Your task to perform on an android device: Play the last video I watched on Youtube Image 0: 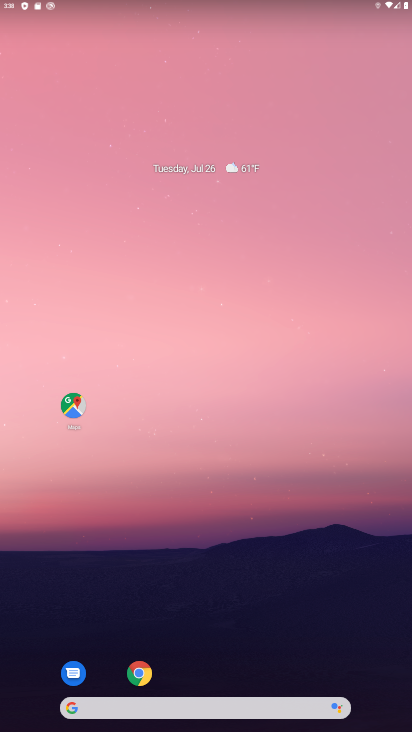
Step 0: press home button
Your task to perform on an android device: Play the last video I watched on Youtube Image 1: 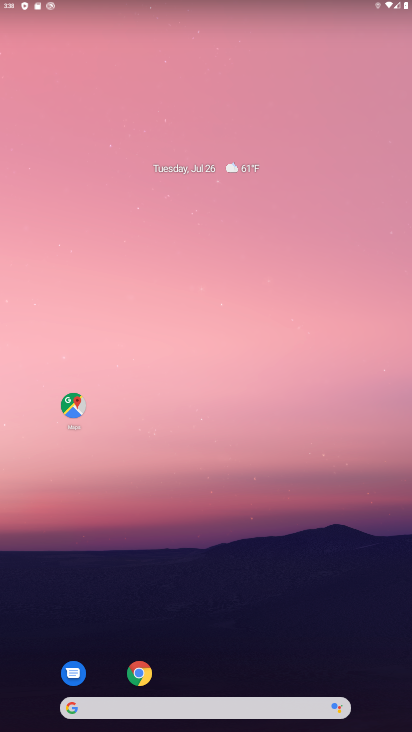
Step 1: drag from (216, 674) to (303, 95)
Your task to perform on an android device: Play the last video I watched on Youtube Image 2: 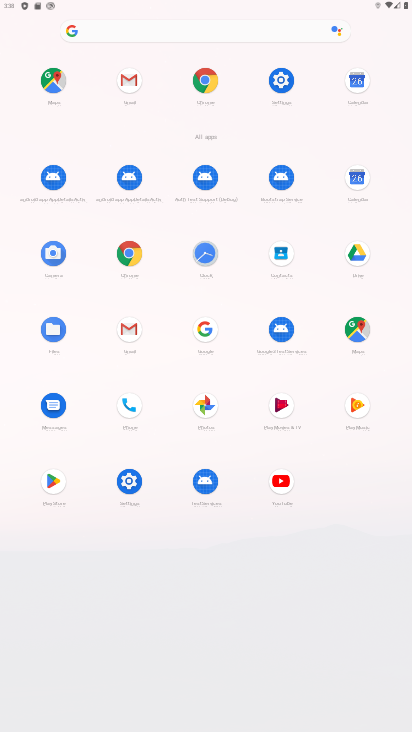
Step 2: click (275, 471)
Your task to perform on an android device: Play the last video I watched on Youtube Image 3: 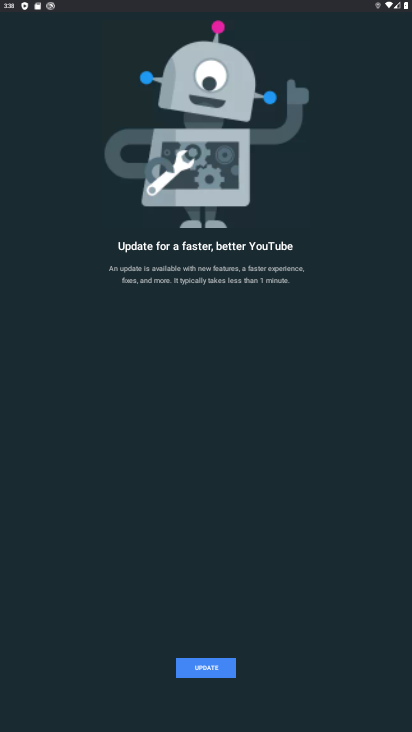
Step 3: click (209, 666)
Your task to perform on an android device: Play the last video I watched on Youtube Image 4: 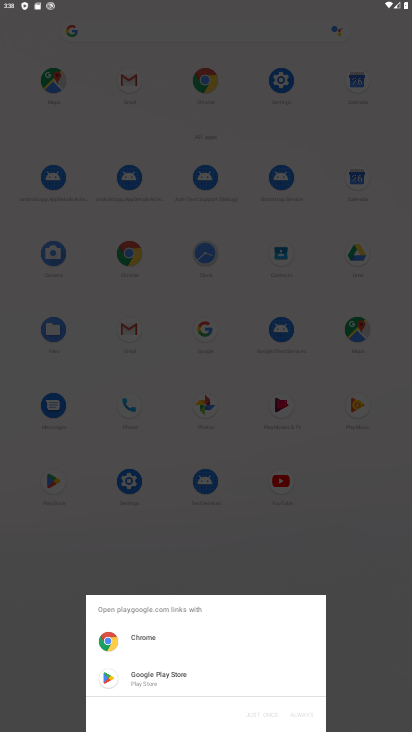
Step 4: click (154, 670)
Your task to perform on an android device: Play the last video I watched on Youtube Image 5: 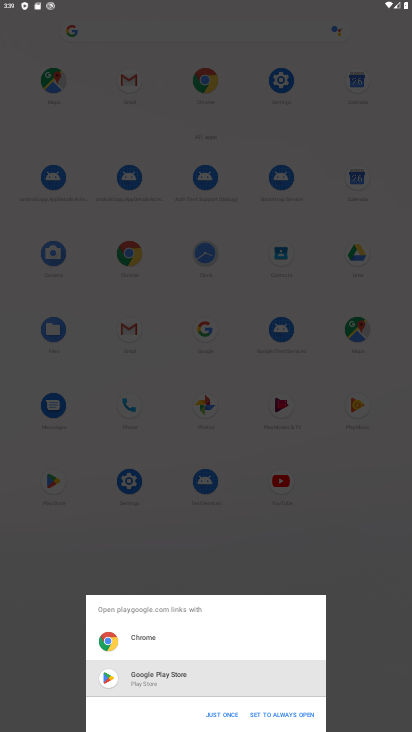
Step 5: click (216, 710)
Your task to perform on an android device: Play the last video I watched on Youtube Image 6: 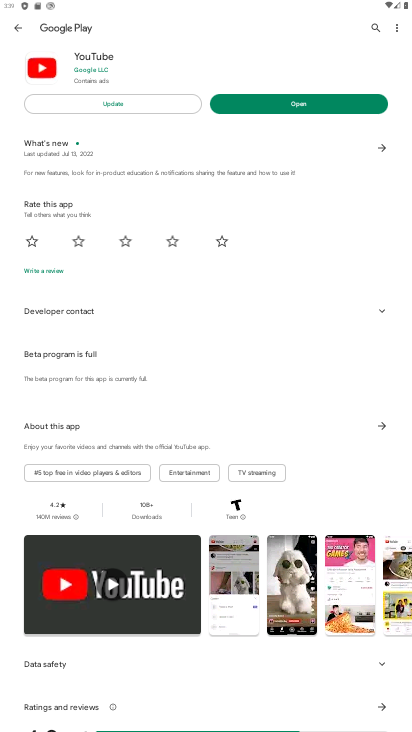
Step 6: click (107, 102)
Your task to perform on an android device: Play the last video I watched on Youtube Image 7: 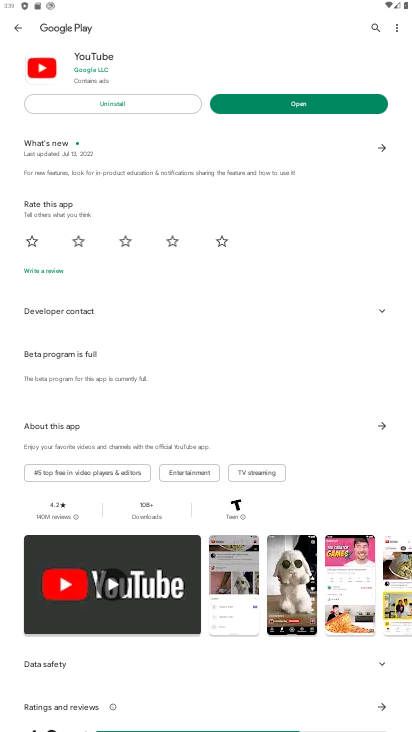
Step 7: click (290, 100)
Your task to perform on an android device: Play the last video I watched on Youtube Image 8: 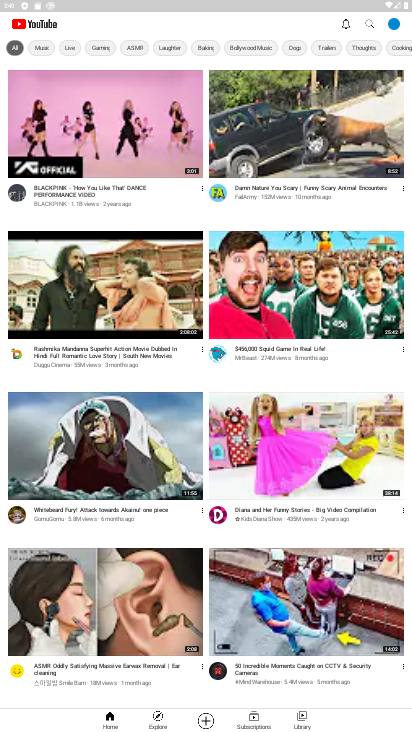
Step 8: click (303, 717)
Your task to perform on an android device: Play the last video I watched on Youtube Image 9: 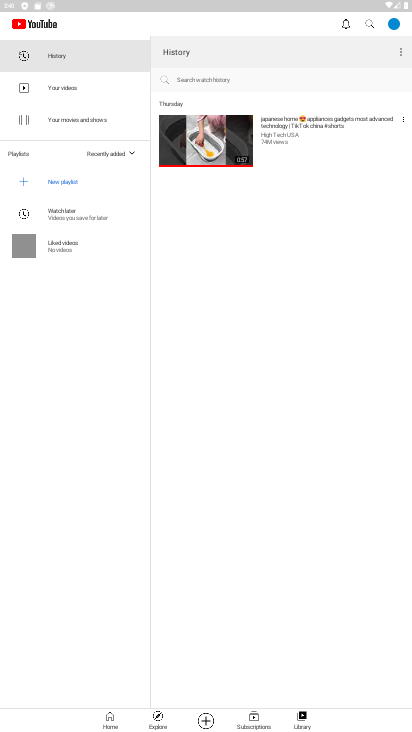
Step 9: click (194, 153)
Your task to perform on an android device: Play the last video I watched on Youtube Image 10: 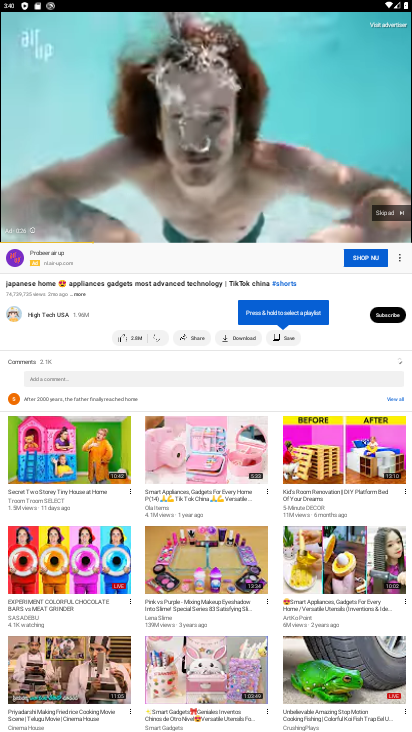
Step 10: task complete